Your task to perform on an android device: Open Android settings Image 0: 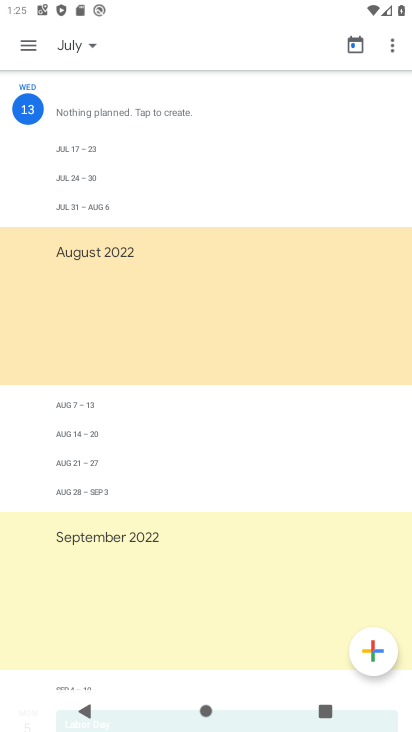
Step 0: press home button
Your task to perform on an android device: Open Android settings Image 1: 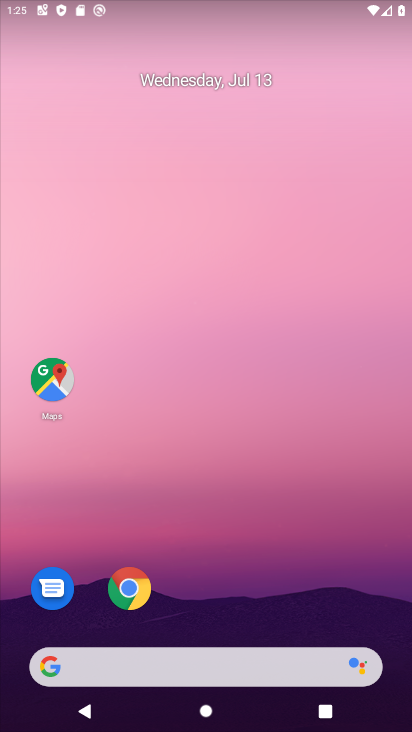
Step 1: drag from (218, 644) to (179, 216)
Your task to perform on an android device: Open Android settings Image 2: 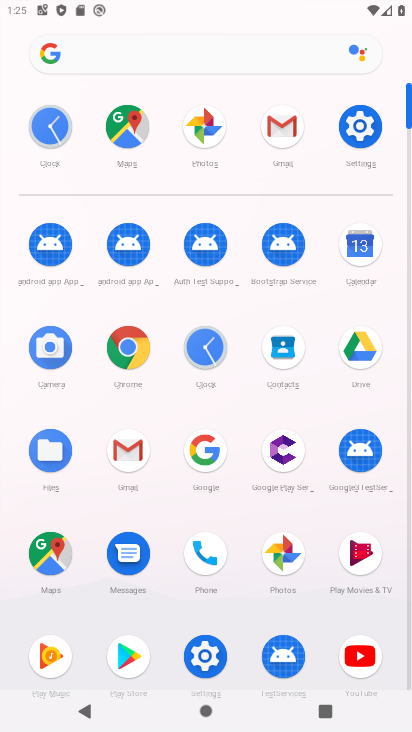
Step 2: click (367, 123)
Your task to perform on an android device: Open Android settings Image 3: 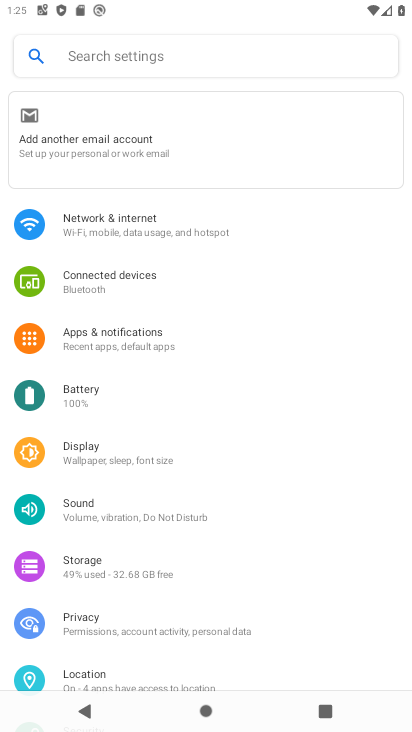
Step 3: task complete